Your task to perform on an android device: turn on airplane mode Image 0: 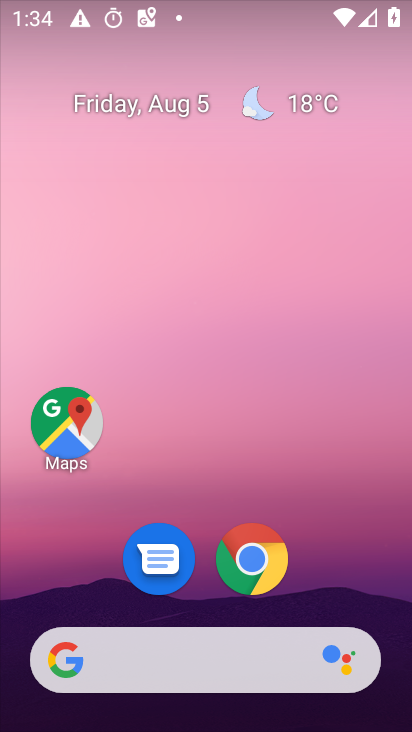
Step 0: drag from (20, 706) to (83, 469)
Your task to perform on an android device: turn on airplane mode Image 1: 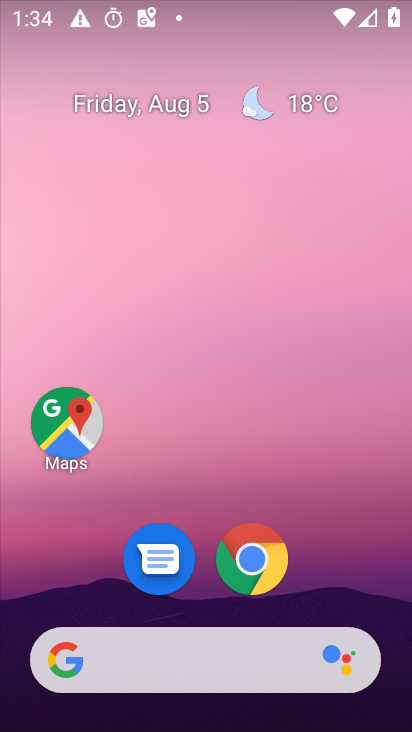
Step 1: drag from (66, 575) to (202, 375)
Your task to perform on an android device: turn on airplane mode Image 2: 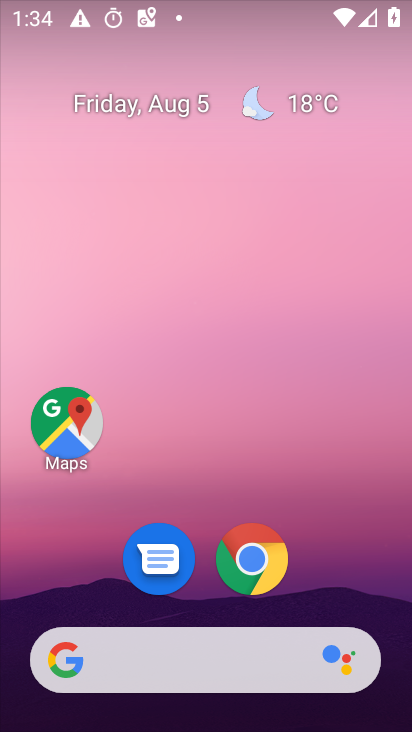
Step 2: click (32, 682)
Your task to perform on an android device: turn on airplane mode Image 3: 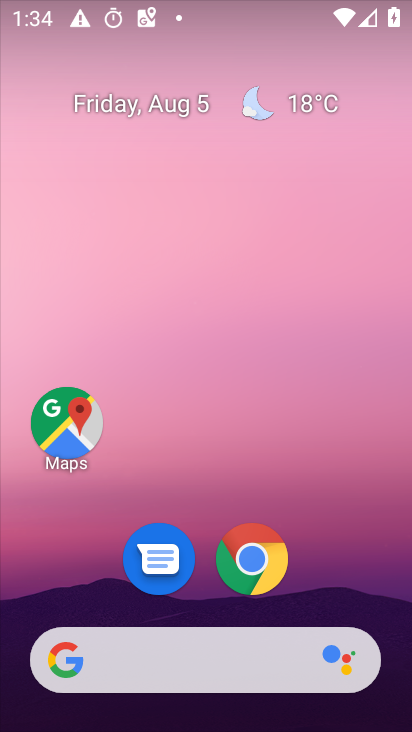
Step 3: drag from (93, 515) to (220, 342)
Your task to perform on an android device: turn on airplane mode Image 4: 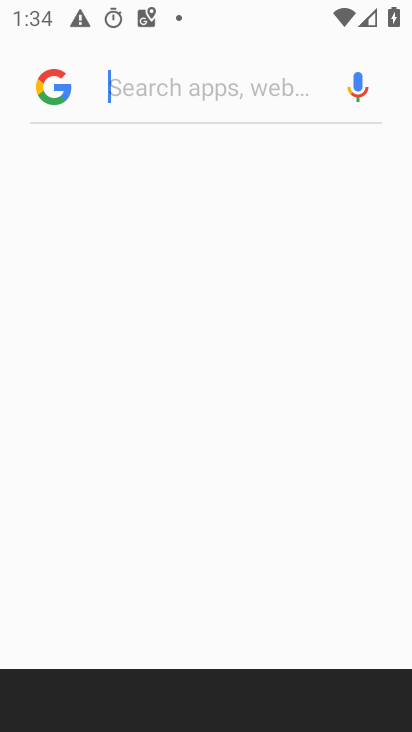
Step 4: click (220, 342)
Your task to perform on an android device: turn on airplane mode Image 5: 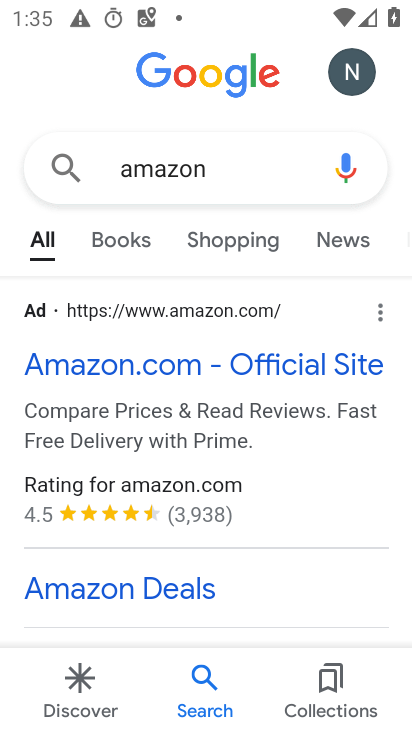
Step 5: task complete